Your task to perform on an android device: Go to sound settings Image 0: 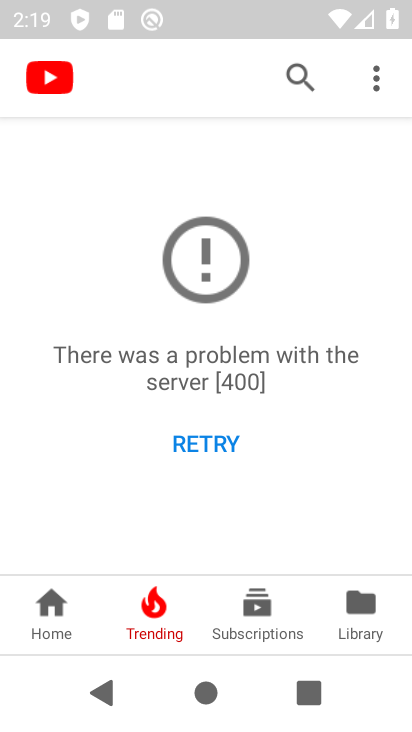
Step 0: press home button
Your task to perform on an android device: Go to sound settings Image 1: 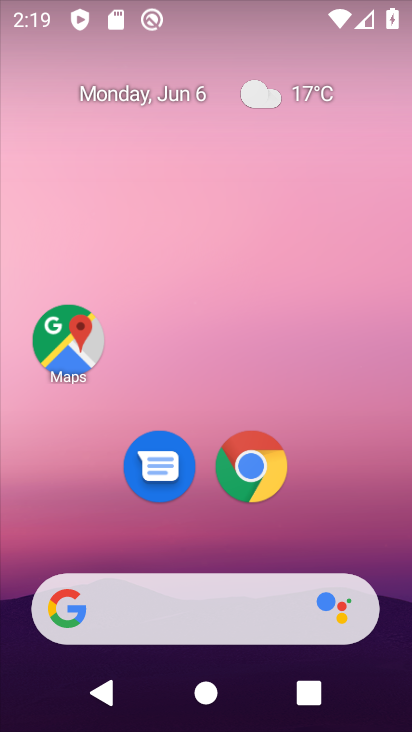
Step 1: drag from (374, 510) to (247, 125)
Your task to perform on an android device: Go to sound settings Image 2: 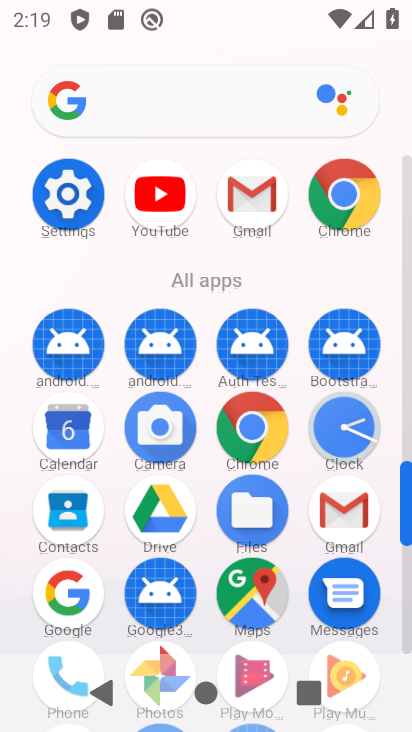
Step 2: click (66, 190)
Your task to perform on an android device: Go to sound settings Image 3: 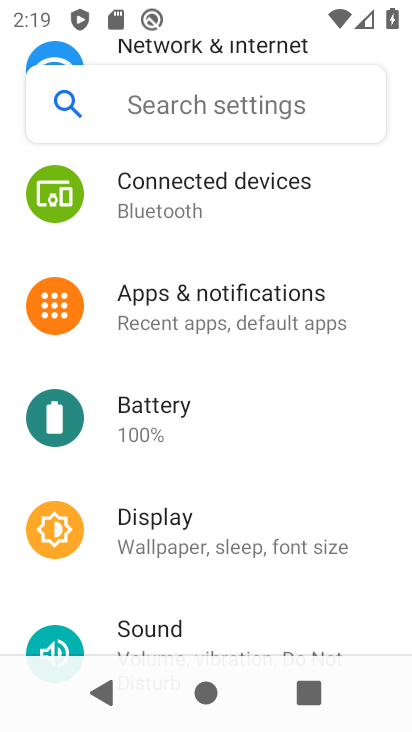
Step 3: drag from (236, 580) to (211, 255)
Your task to perform on an android device: Go to sound settings Image 4: 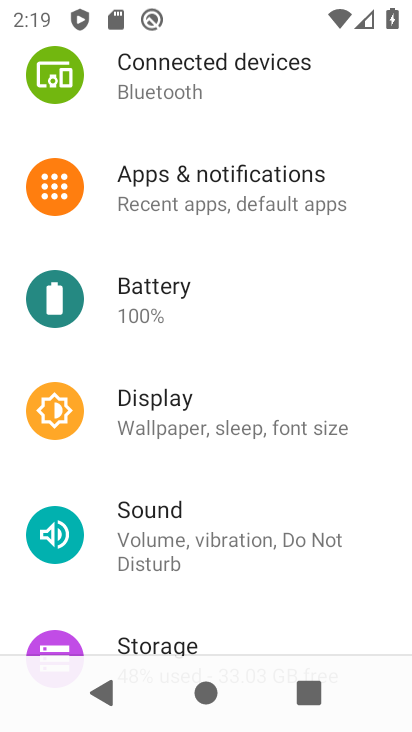
Step 4: click (211, 533)
Your task to perform on an android device: Go to sound settings Image 5: 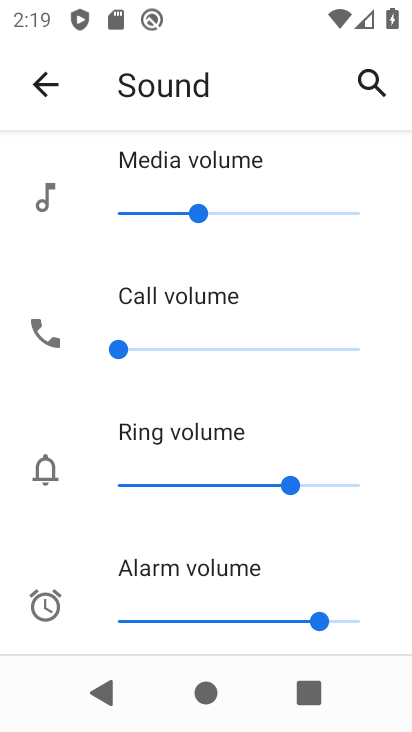
Step 5: task complete